Your task to perform on an android device: turn off sleep mode Image 0: 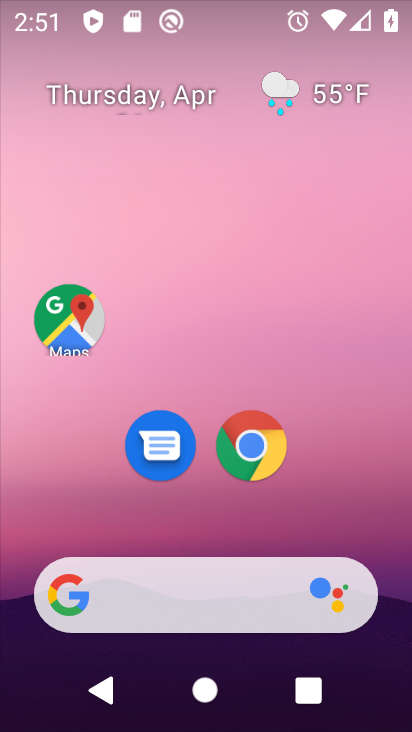
Step 0: drag from (226, 688) to (220, 57)
Your task to perform on an android device: turn off sleep mode Image 1: 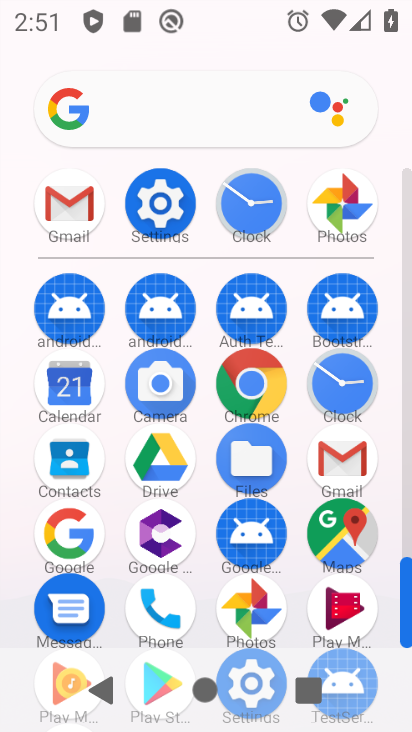
Step 1: click (153, 204)
Your task to perform on an android device: turn off sleep mode Image 2: 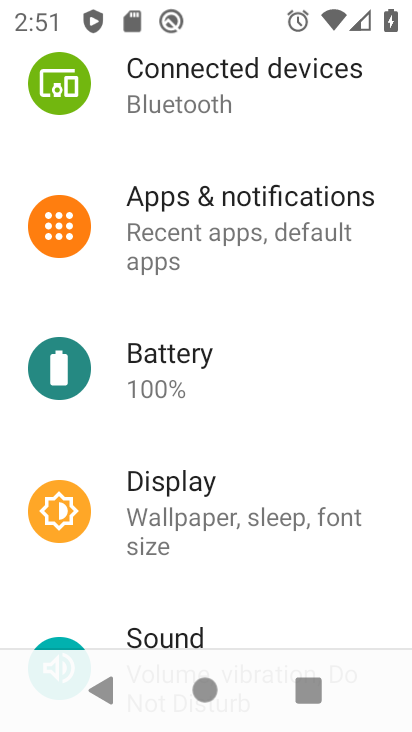
Step 2: drag from (221, 132) to (247, 562)
Your task to perform on an android device: turn off sleep mode Image 3: 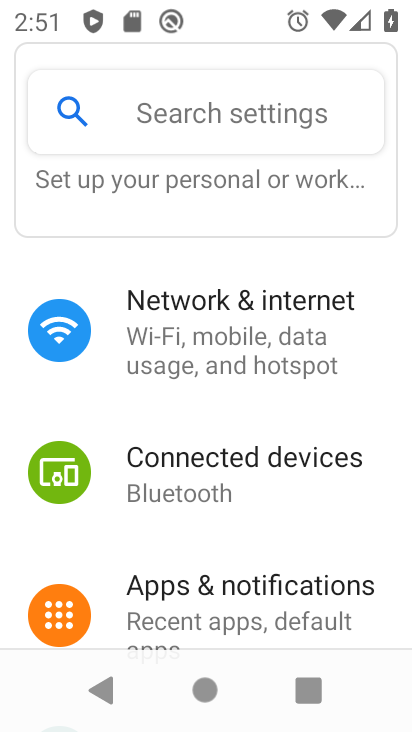
Step 3: drag from (213, 555) to (220, 250)
Your task to perform on an android device: turn off sleep mode Image 4: 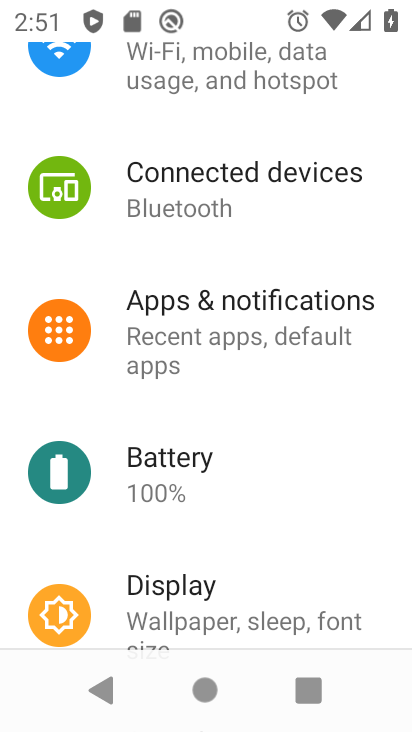
Step 4: drag from (212, 614) to (232, 232)
Your task to perform on an android device: turn off sleep mode Image 5: 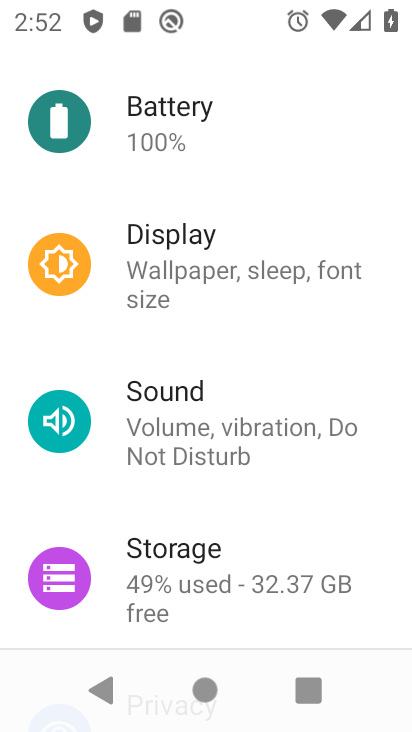
Step 5: click (177, 264)
Your task to perform on an android device: turn off sleep mode Image 6: 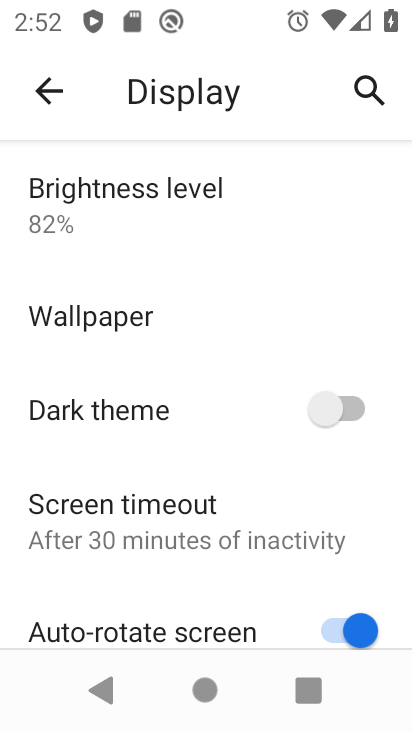
Step 6: task complete